Your task to perform on an android device: change the clock display to analog Image 0: 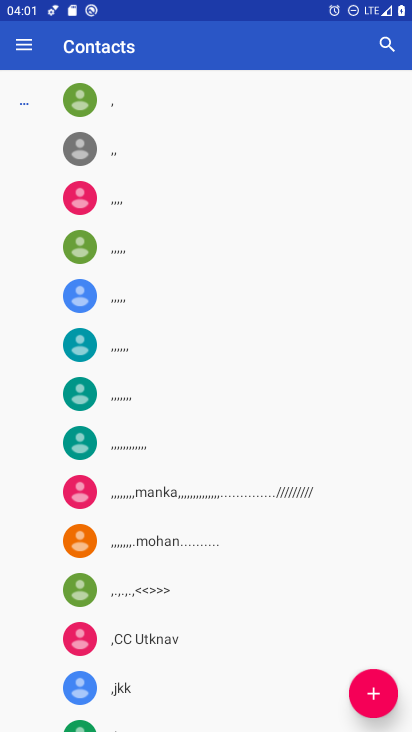
Step 0: press back button
Your task to perform on an android device: change the clock display to analog Image 1: 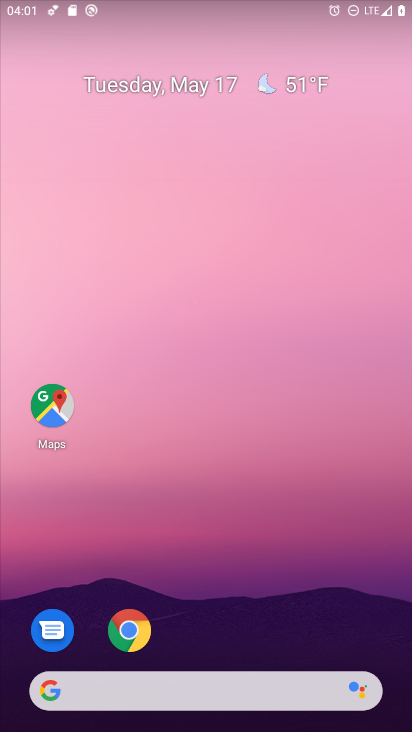
Step 1: drag from (232, 622) to (289, 93)
Your task to perform on an android device: change the clock display to analog Image 2: 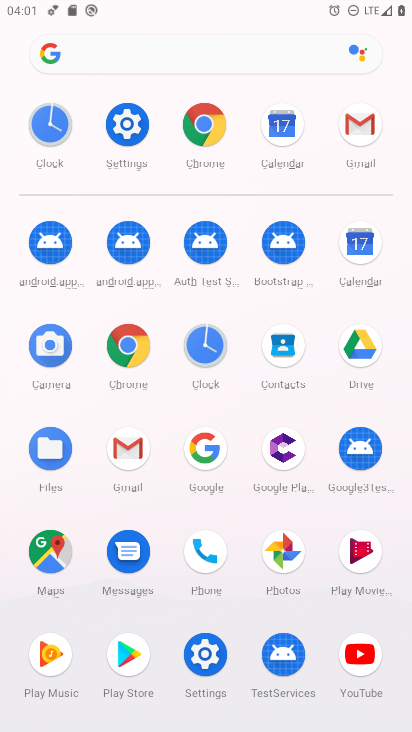
Step 2: click (203, 350)
Your task to perform on an android device: change the clock display to analog Image 3: 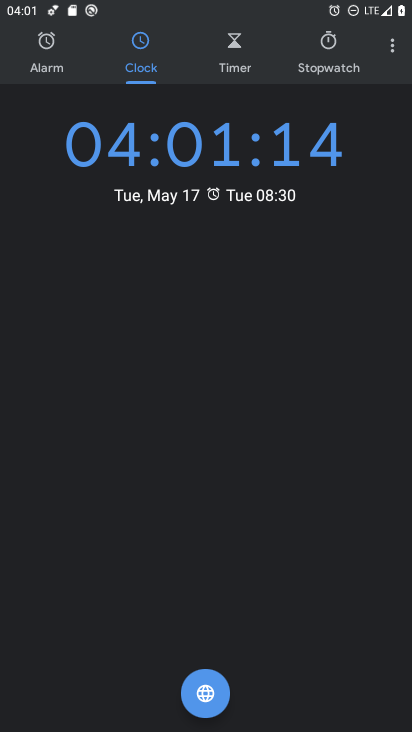
Step 3: click (393, 44)
Your task to perform on an android device: change the clock display to analog Image 4: 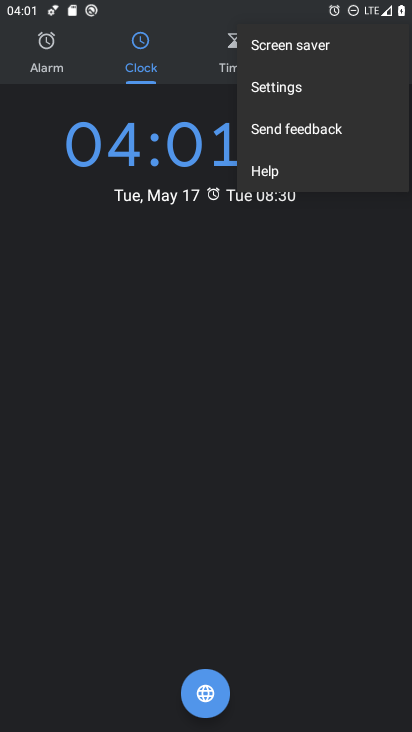
Step 4: click (288, 91)
Your task to perform on an android device: change the clock display to analog Image 5: 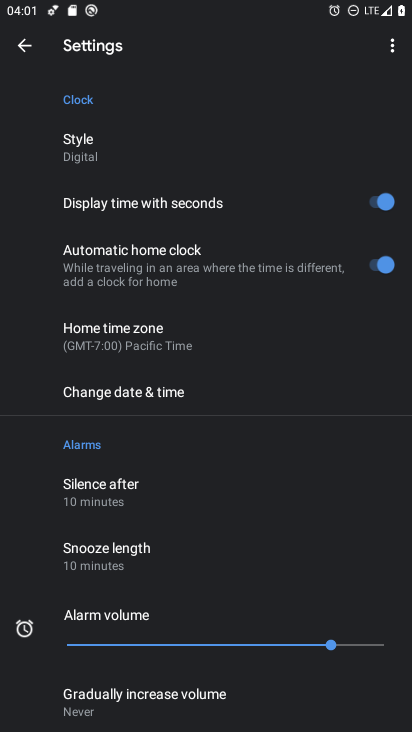
Step 5: click (111, 159)
Your task to perform on an android device: change the clock display to analog Image 6: 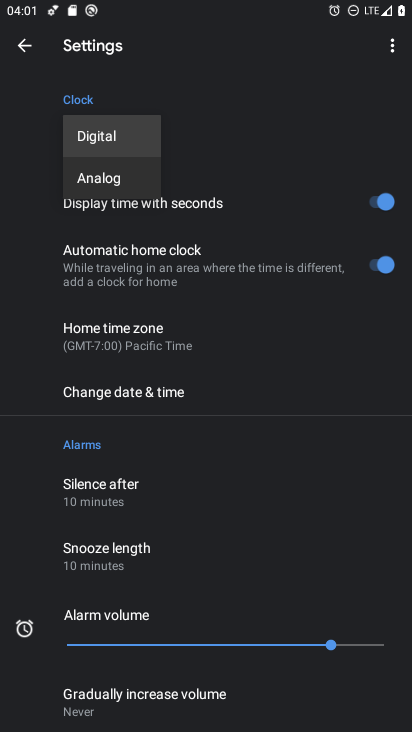
Step 6: click (110, 176)
Your task to perform on an android device: change the clock display to analog Image 7: 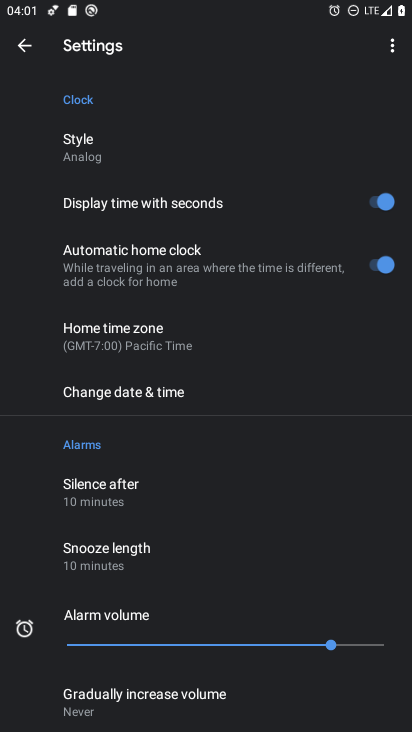
Step 7: task complete